Your task to perform on an android device: empty trash in the gmail app Image 0: 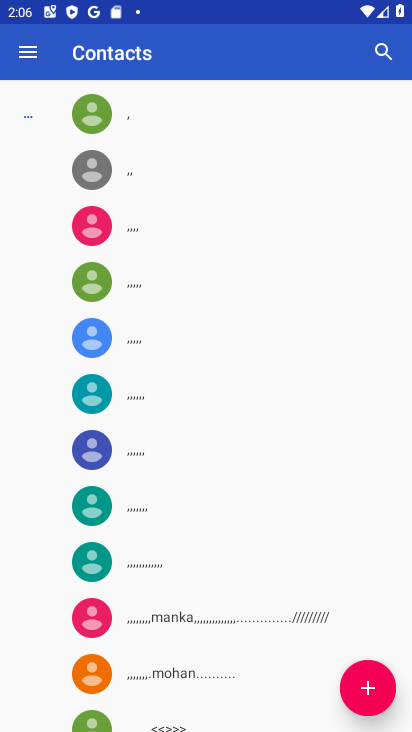
Step 0: press home button
Your task to perform on an android device: empty trash in the gmail app Image 1: 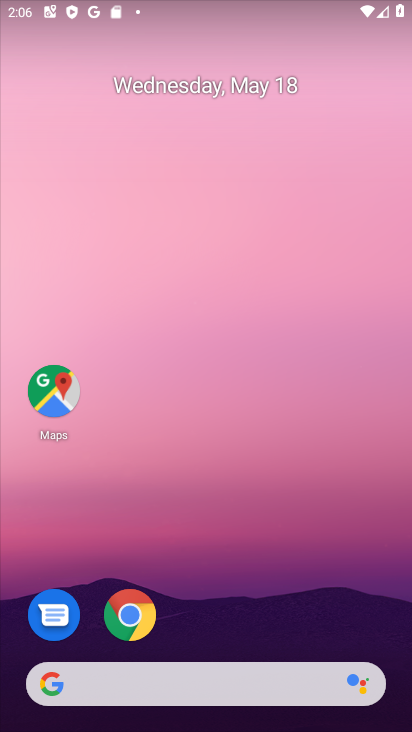
Step 1: drag from (317, 601) to (295, 208)
Your task to perform on an android device: empty trash in the gmail app Image 2: 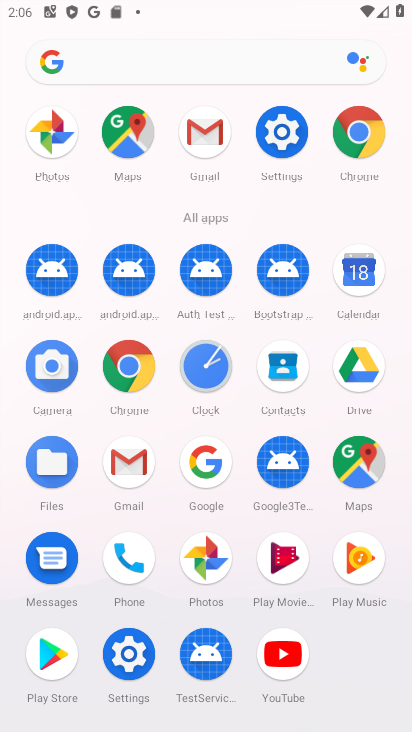
Step 2: click (202, 149)
Your task to perform on an android device: empty trash in the gmail app Image 3: 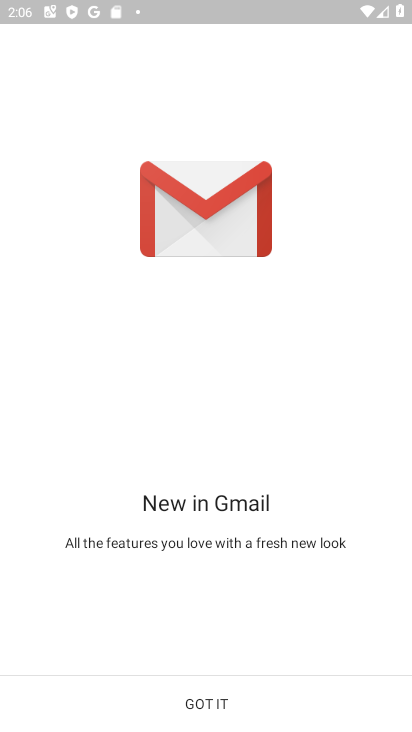
Step 3: click (206, 688)
Your task to perform on an android device: empty trash in the gmail app Image 4: 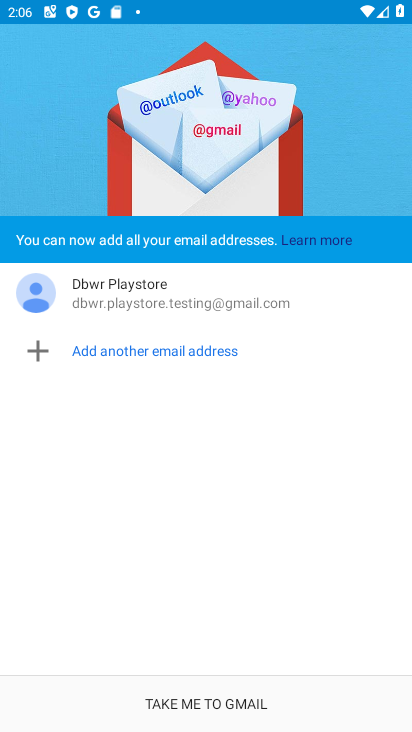
Step 4: click (216, 693)
Your task to perform on an android device: empty trash in the gmail app Image 5: 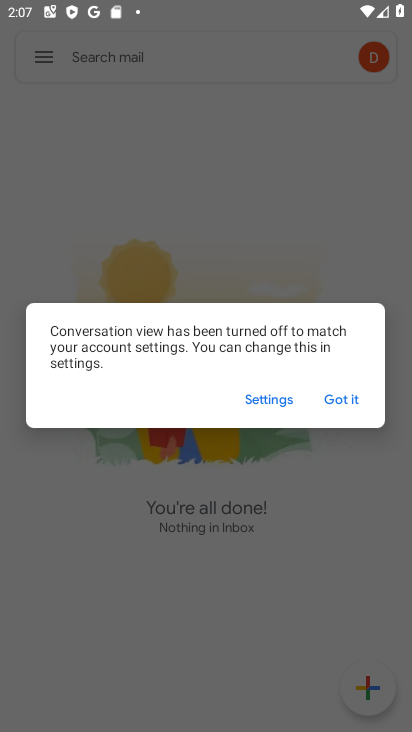
Step 5: click (334, 401)
Your task to perform on an android device: empty trash in the gmail app Image 6: 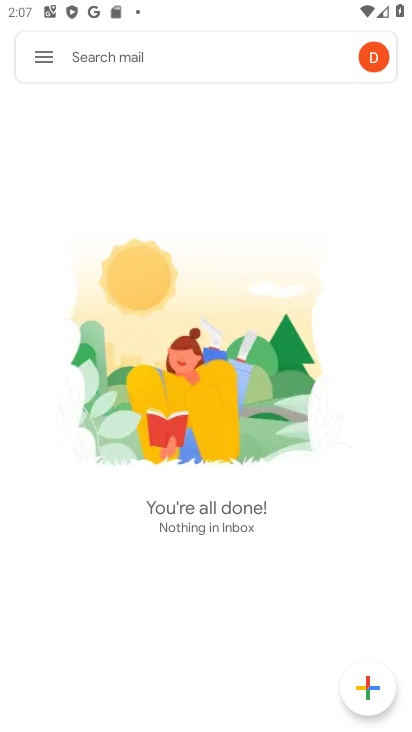
Step 6: click (41, 79)
Your task to perform on an android device: empty trash in the gmail app Image 7: 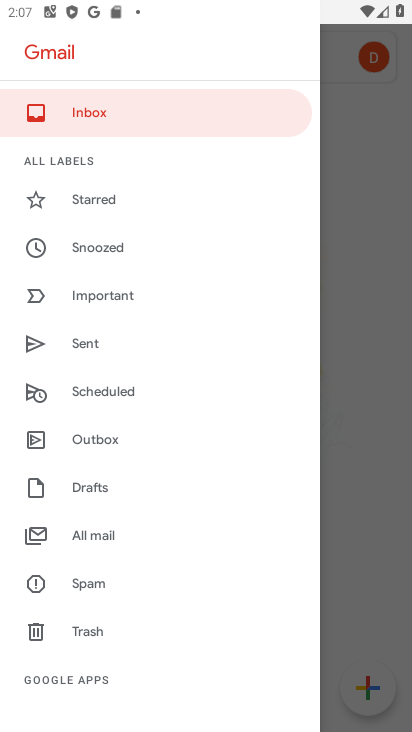
Step 7: click (110, 636)
Your task to perform on an android device: empty trash in the gmail app Image 8: 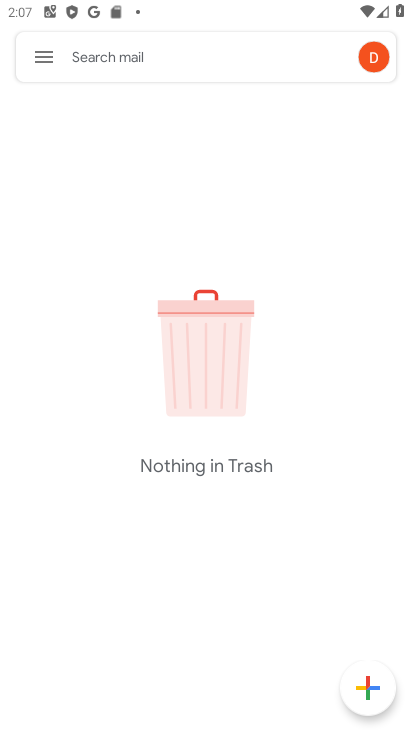
Step 8: task complete